Your task to perform on an android device: Search for floor lamps on article.com Image 0: 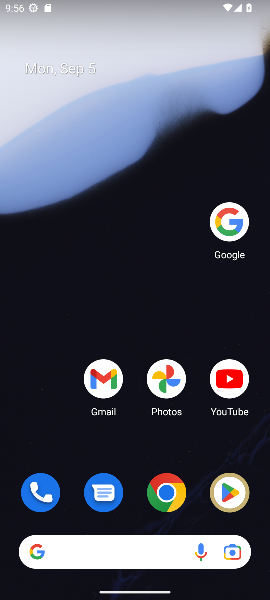
Step 0: click (221, 210)
Your task to perform on an android device: Search for floor lamps on article.com Image 1: 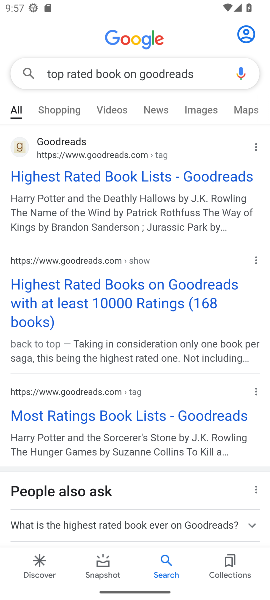
Step 1: click (196, 75)
Your task to perform on an android device: Search for floor lamps on article.com Image 2: 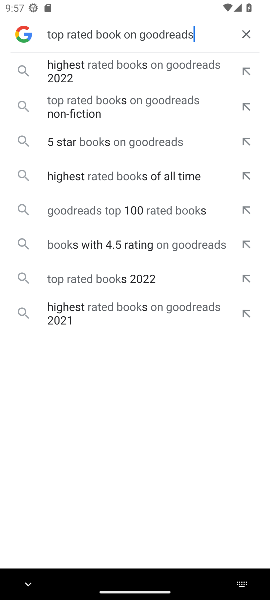
Step 2: click (235, 28)
Your task to perform on an android device: Search for floor lamps on article.com Image 3: 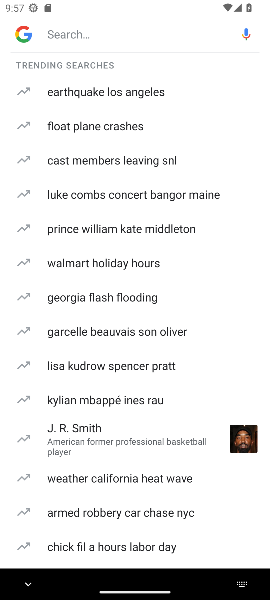
Step 3: click (92, 33)
Your task to perform on an android device: Search for floor lamps on article.com Image 4: 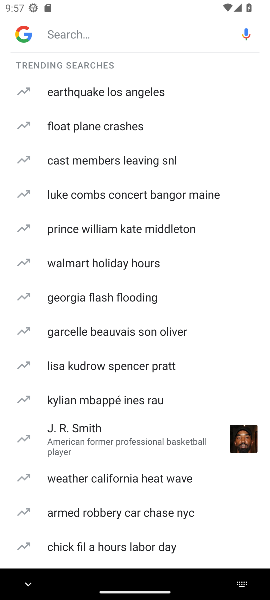
Step 4: type " floor lamps on article.com "
Your task to perform on an android device: Search for floor lamps on article.com Image 5: 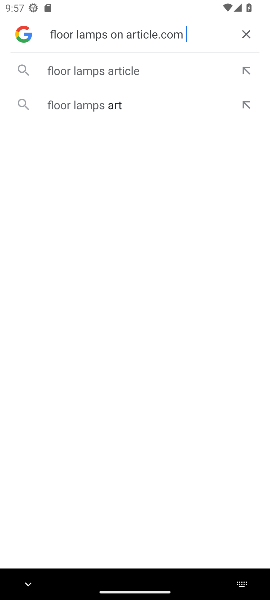
Step 5: click (96, 80)
Your task to perform on an android device: Search for floor lamps on article.com Image 6: 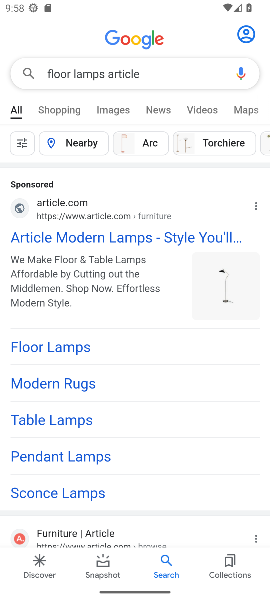
Step 6: click (104, 238)
Your task to perform on an android device: Search for floor lamps on article.com Image 7: 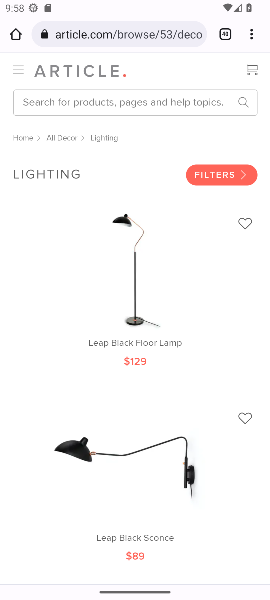
Step 7: task complete